Your task to perform on an android device: clear all cookies in the chrome app Image 0: 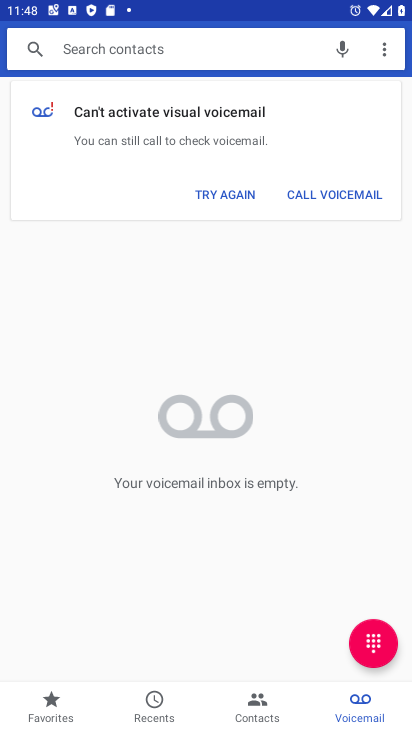
Step 0: press home button
Your task to perform on an android device: clear all cookies in the chrome app Image 1: 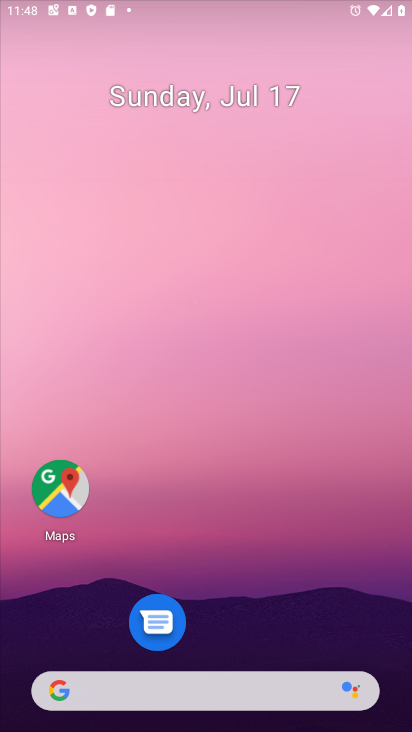
Step 1: drag from (194, 716) to (135, 44)
Your task to perform on an android device: clear all cookies in the chrome app Image 2: 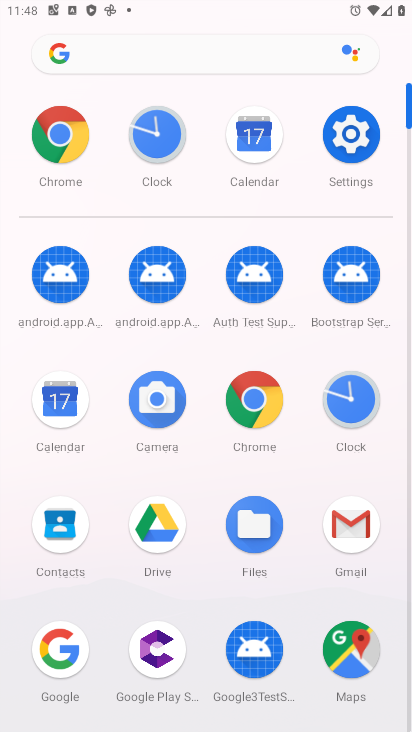
Step 2: click (63, 137)
Your task to perform on an android device: clear all cookies in the chrome app Image 3: 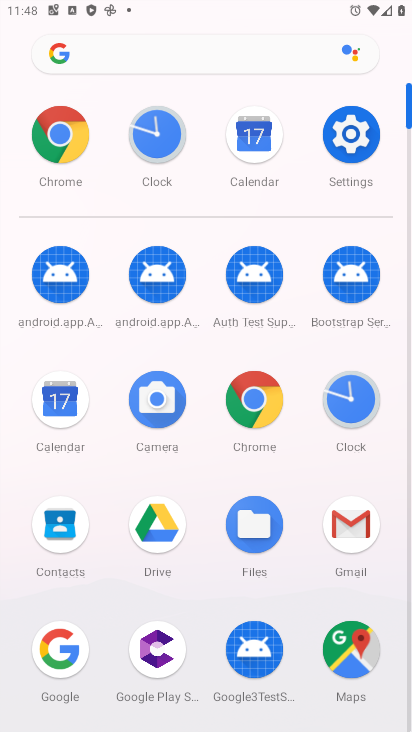
Step 3: click (63, 137)
Your task to perform on an android device: clear all cookies in the chrome app Image 4: 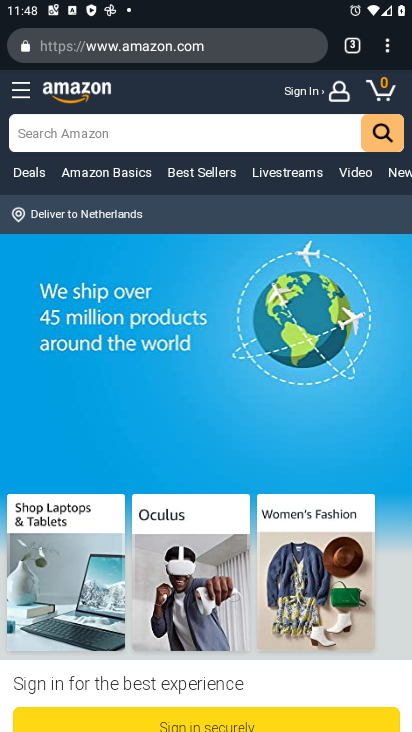
Step 4: click (388, 44)
Your task to perform on an android device: clear all cookies in the chrome app Image 5: 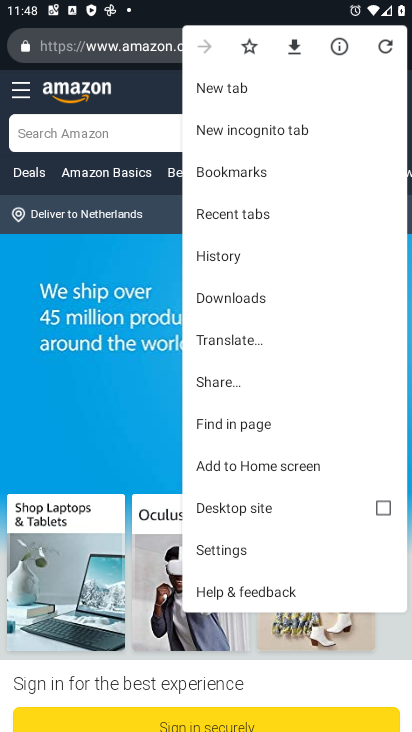
Step 5: click (238, 249)
Your task to perform on an android device: clear all cookies in the chrome app Image 6: 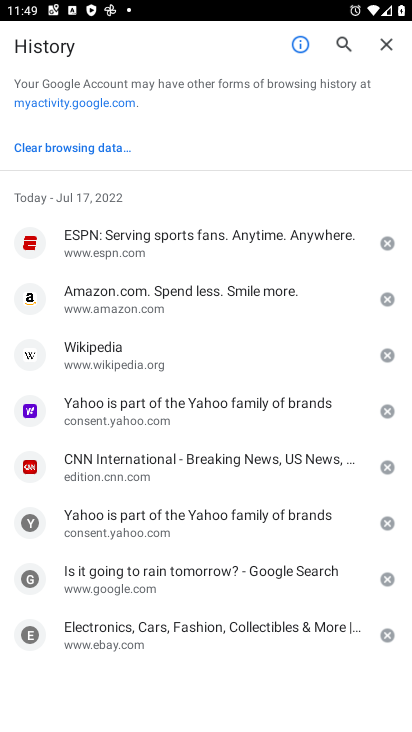
Step 6: click (48, 144)
Your task to perform on an android device: clear all cookies in the chrome app Image 7: 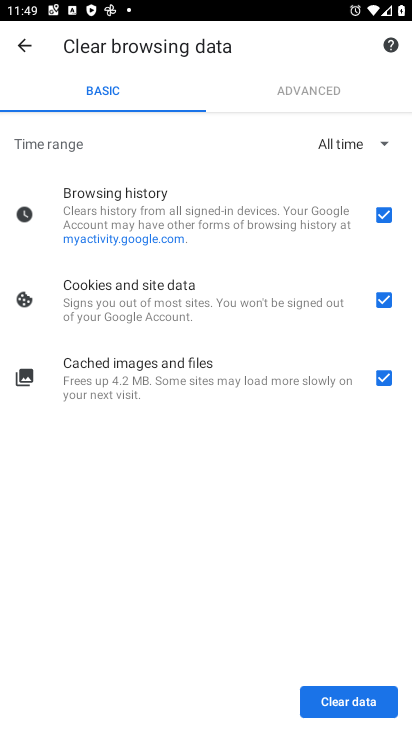
Step 7: click (324, 705)
Your task to perform on an android device: clear all cookies in the chrome app Image 8: 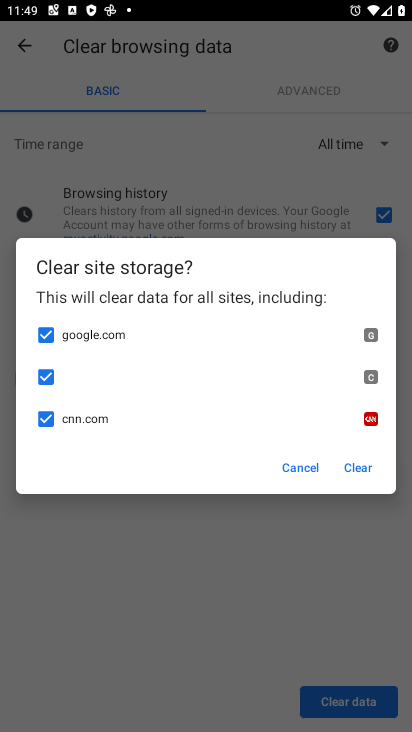
Step 8: click (359, 465)
Your task to perform on an android device: clear all cookies in the chrome app Image 9: 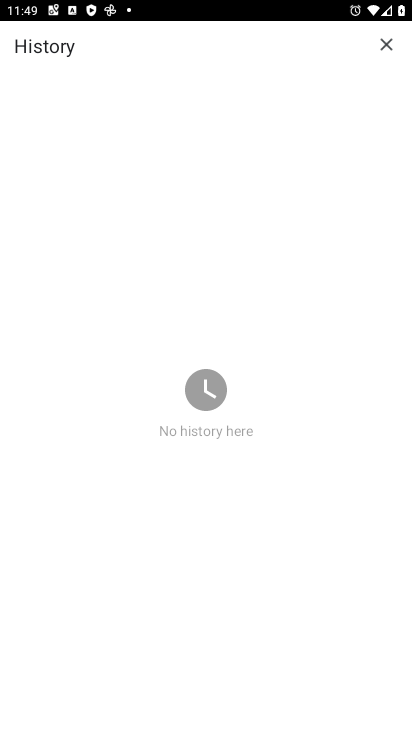
Step 9: task complete